Your task to perform on an android device: turn on data saver in the chrome app Image 0: 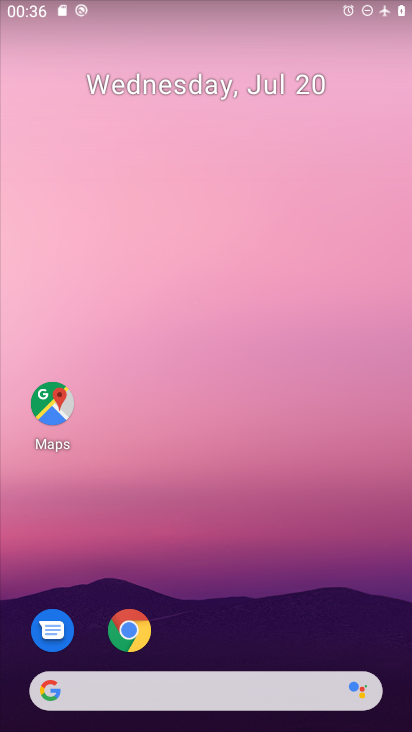
Step 0: click (144, 623)
Your task to perform on an android device: turn on data saver in the chrome app Image 1: 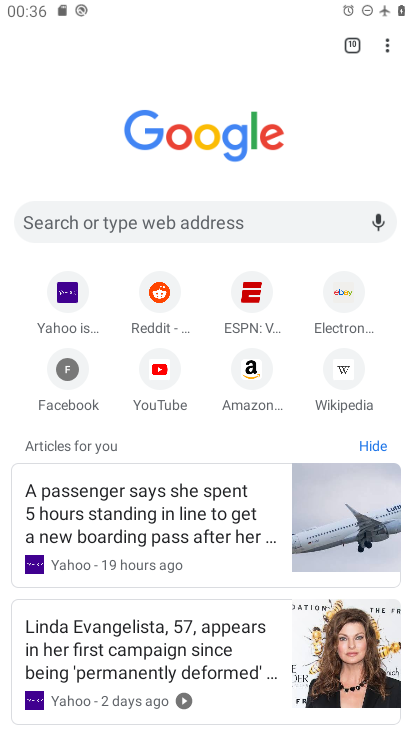
Step 1: click (389, 53)
Your task to perform on an android device: turn on data saver in the chrome app Image 2: 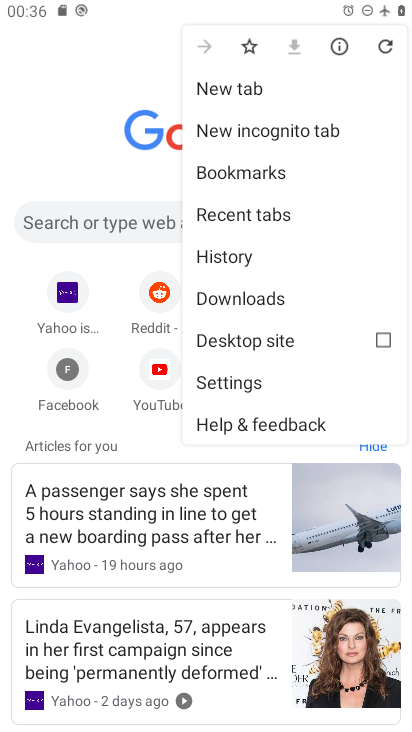
Step 2: click (260, 372)
Your task to perform on an android device: turn on data saver in the chrome app Image 3: 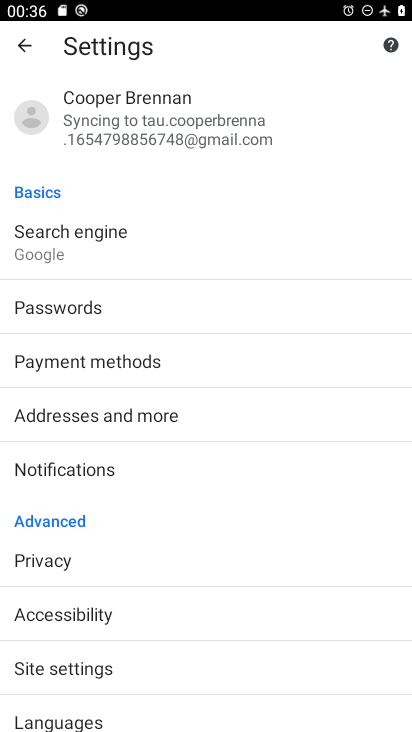
Step 3: drag from (159, 610) to (187, 294)
Your task to perform on an android device: turn on data saver in the chrome app Image 4: 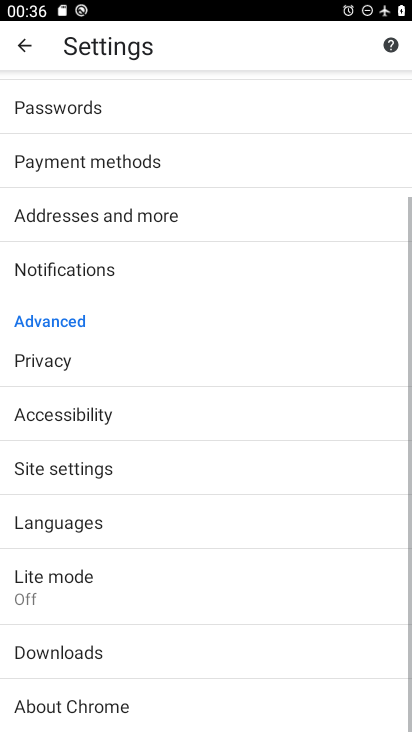
Step 4: click (112, 575)
Your task to perform on an android device: turn on data saver in the chrome app Image 5: 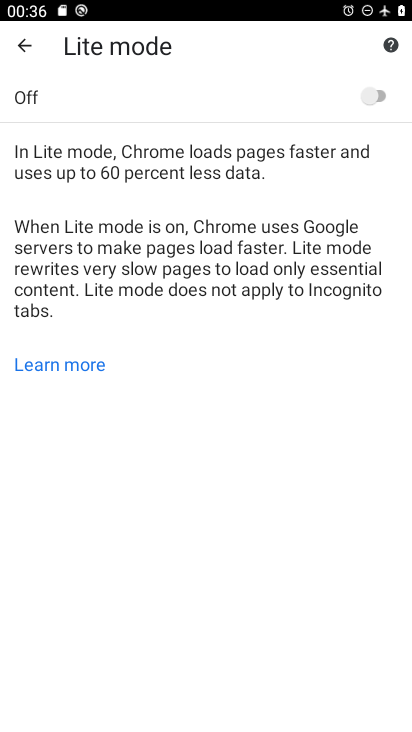
Step 5: click (382, 94)
Your task to perform on an android device: turn on data saver in the chrome app Image 6: 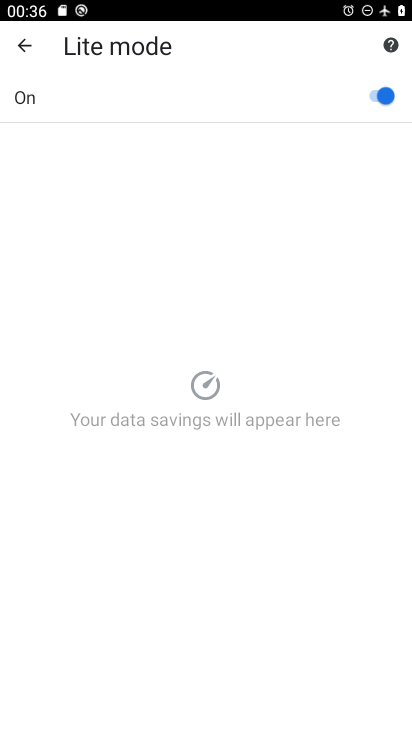
Step 6: task complete